Your task to perform on an android device: find photos in the google photos app Image 0: 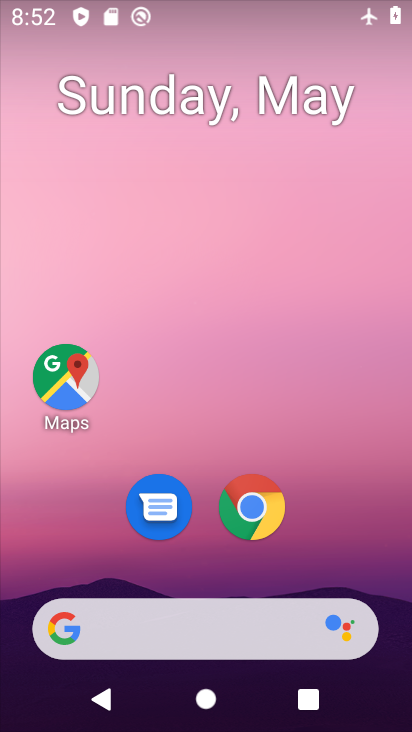
Step 0: drag from (207, 583) to (261, 38)
Your task to perform on an android device: find photos in the google photos app Image 1: 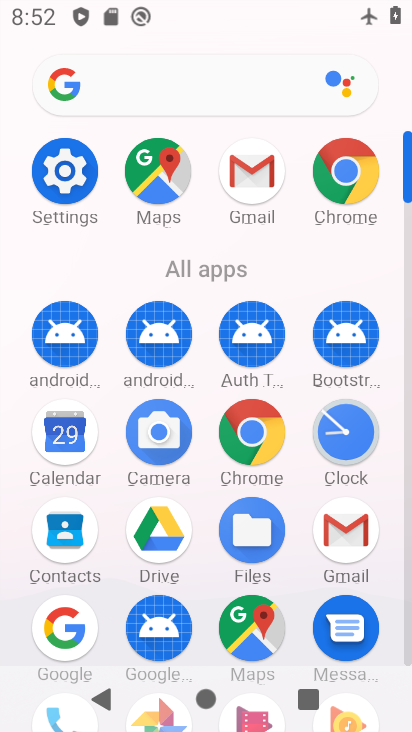
Step 1: click (240, 254)
Your task to perform on an android device: find photos in the google photos app Image 2: 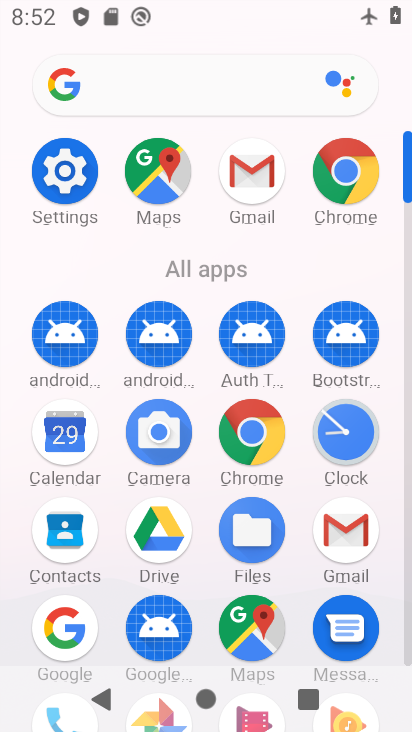
Step 2: drag from (215, 650) to (210, 325)
Your task to perform on an android device: find photos in the google photos app Image 3: 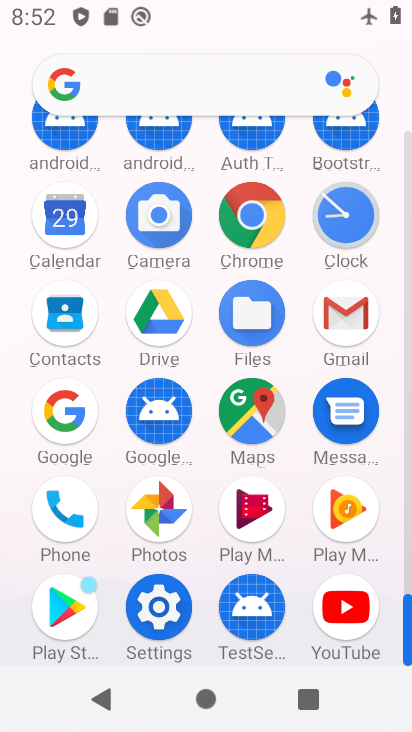
Step 3: click (160, 511)
Your task to perform on an android device: find photos in the google photos app Image 4: 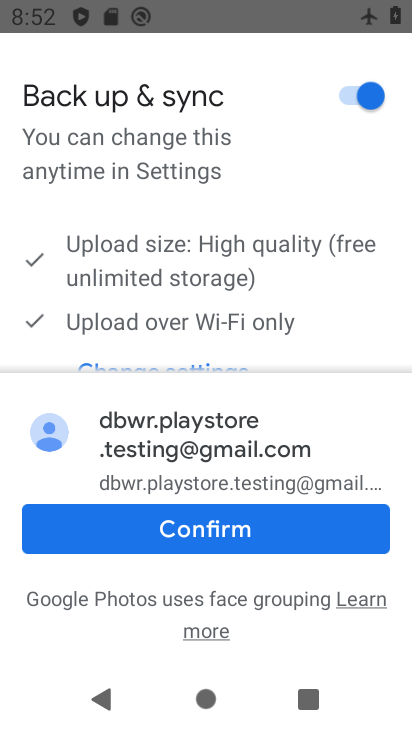
Step 4: click (174, 541)
Your task to perform on an android device: find photos in the google photos app Image 5: 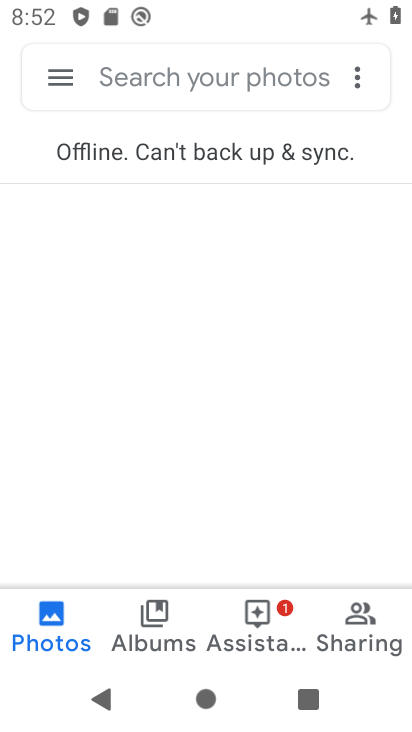
Step 5: task complete